Your task to perform on an android device: turn off priority inbox in the gmail app Image 0: 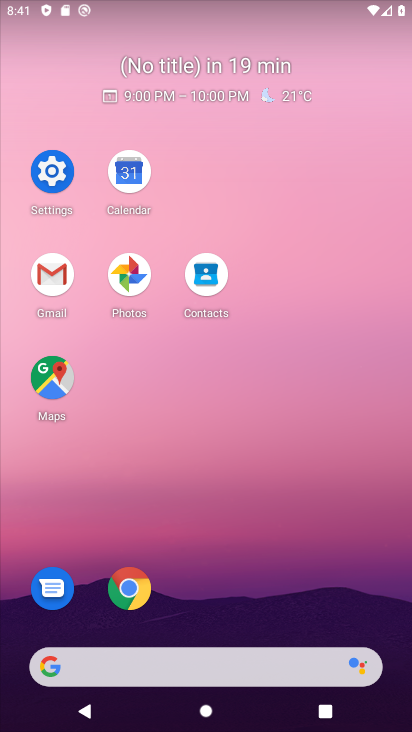
Step 0: click (46, 266)
Your task to perform on an android device: turn off priority inbox in the gmail app Image 1: 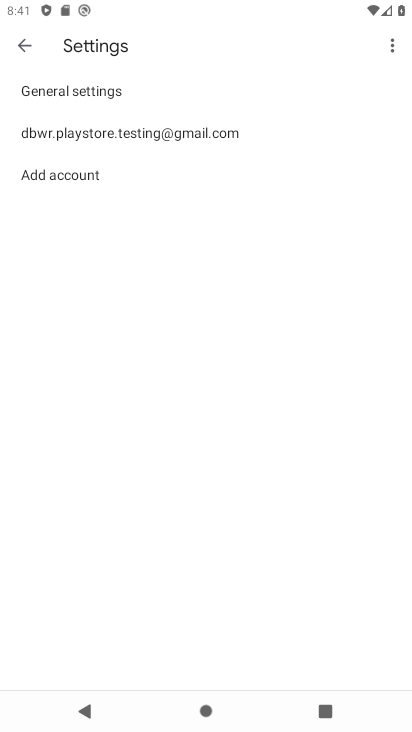
Step 1: click (44, 132)
Your task to perform on an android device: turn off priority inbox in the gmail app Image 2: 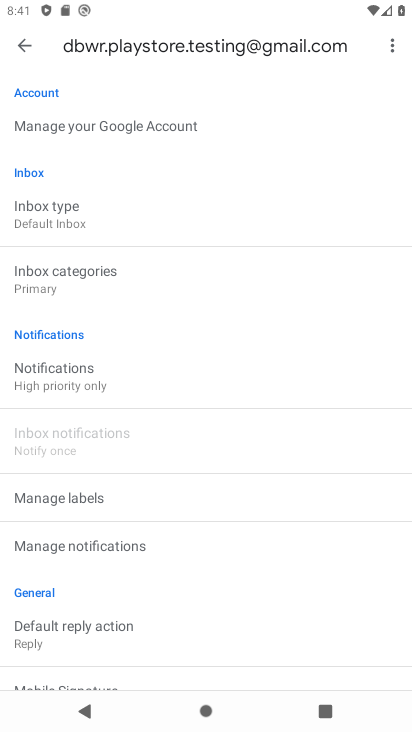
Step 2: click (35, 208)
Your task to perform on an android device: turn off priority inbox in the gmail app Image 3: 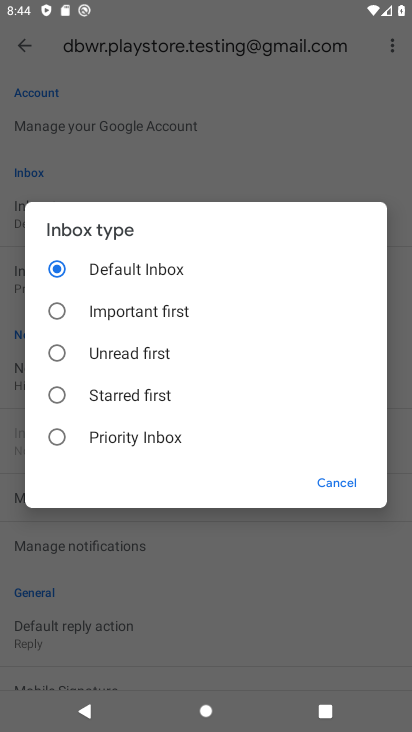
Step 3: task complete